Your task to perform on an android device: change the upload size in google photos Image 0: 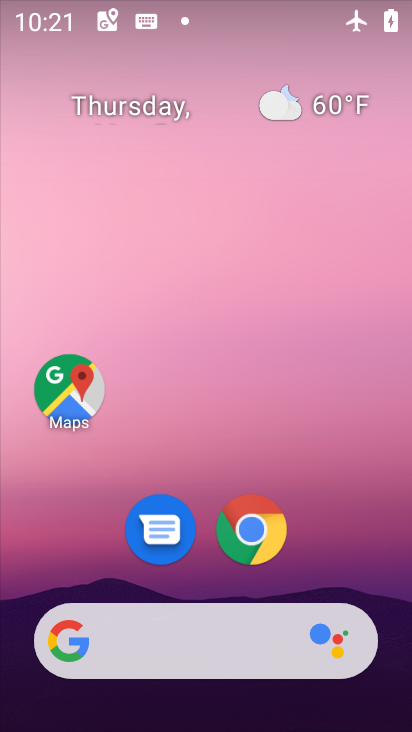
Step 0: drag from (350, 570) to (172, 130)
Your task to perform on an android device: change the upload size in google photos Image 1: 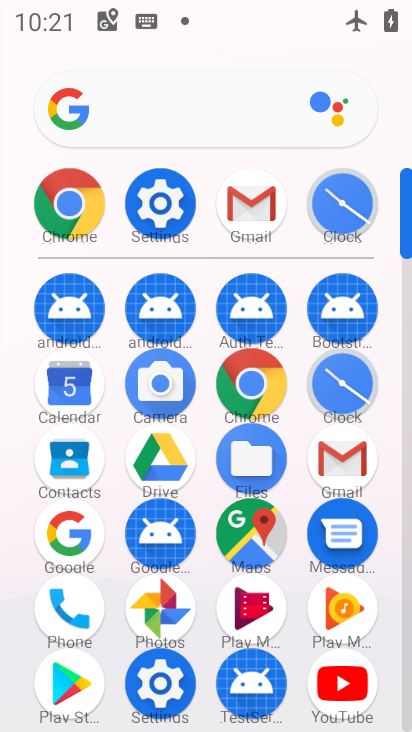
Step 1: click (141, 608)
Your task to perform on an android device: change the upload size in google photos Image 2: 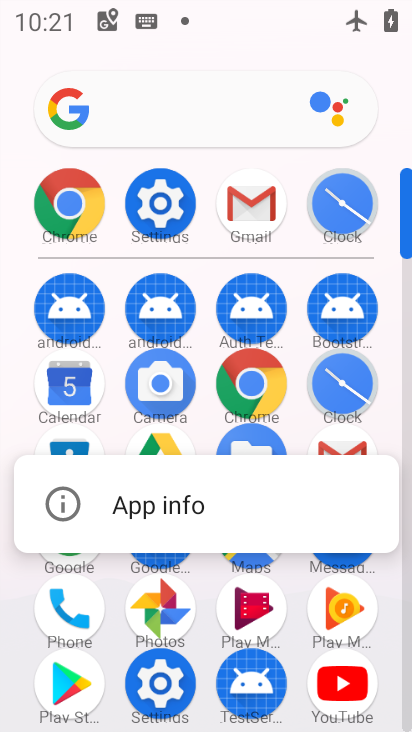
Step 2: click (141, 608)
Your task to perform on an android device: change the upload size in google photos Image 3: 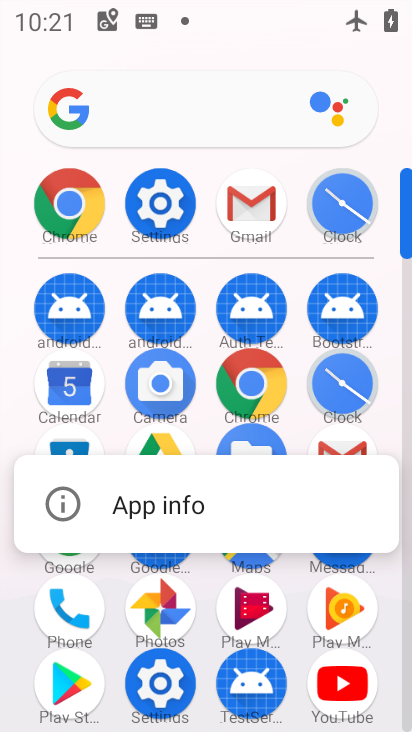
Step 3: click (167, 616)
Your task to perform on an android device: change the upload size in google photos Image 4: 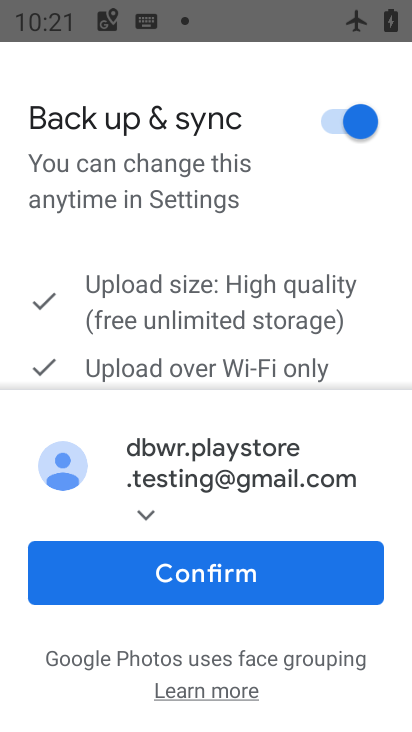
Step 4: click (244, 569)
Your task to perform on an android device: change the upload size in google photos Image 5: 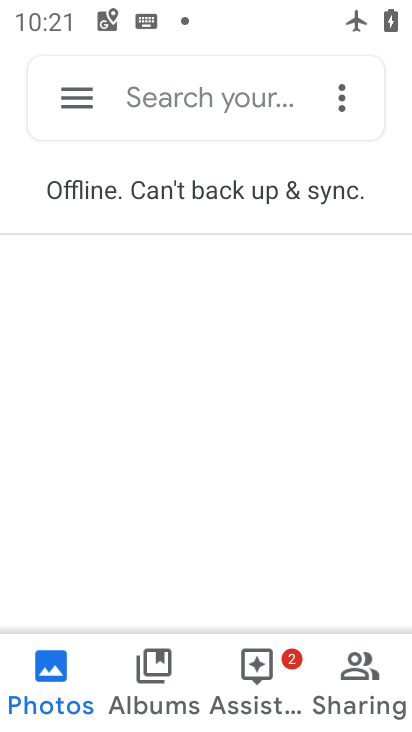
Step 5: drag from (71, 90) to (83, 356)
Your task to perform on an android device: change the upload size in google photos Image 6: 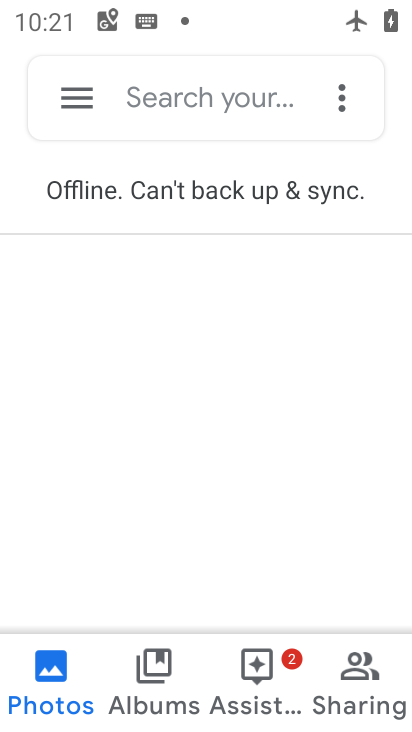
Step 6: click (81, 101)
Your task to perform on an android device: change the upload size in google photos Image 7: 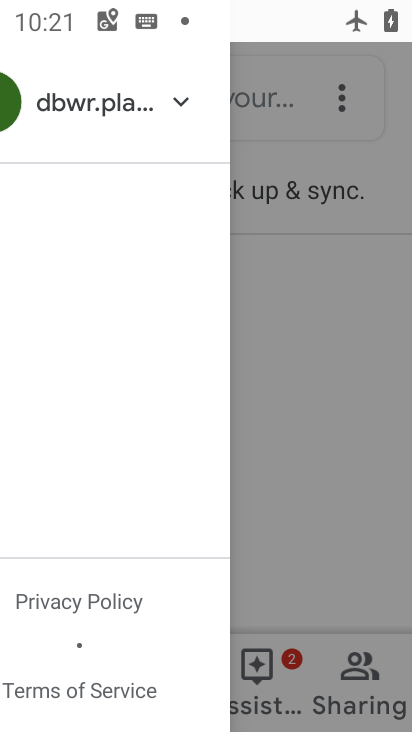
Step 7: click (81, 101)
Your task to perform on an android device: change the upload size in google photos Image 8: 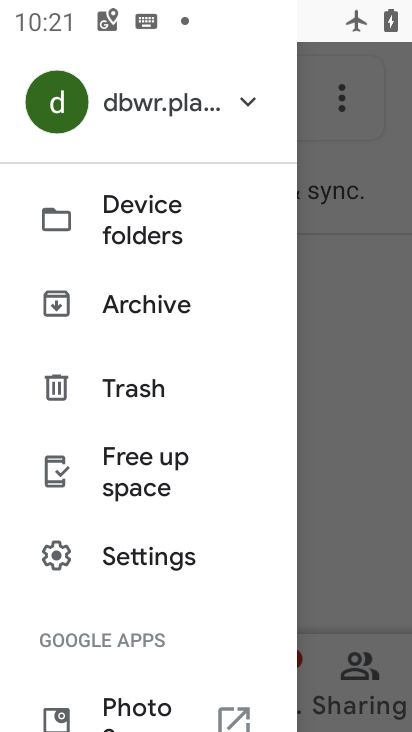
Step 8: click (81, 101)
Your task to perform on an android device: change the upload size in google photos Image 9: 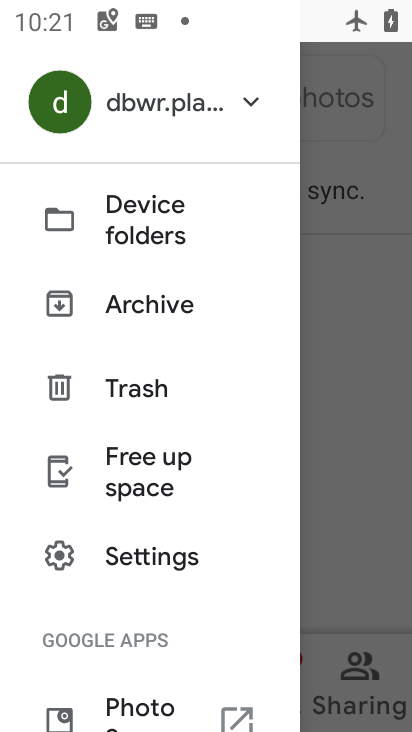
Step 9: click (81, 101)
Your task to perform on an android device: change the upload size in google photos Image 10: 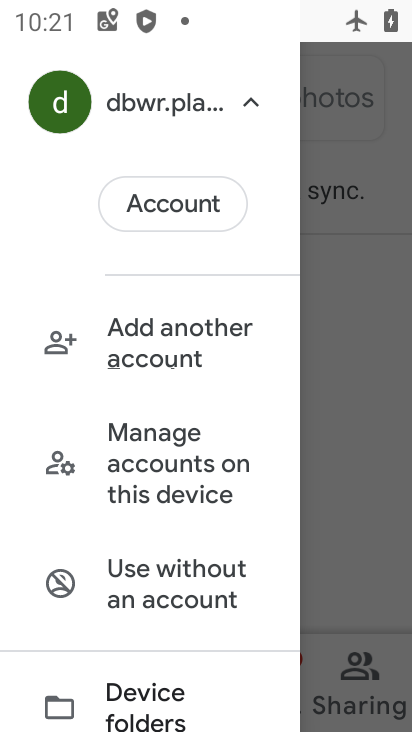
Step 10: click (326, 463)
Your task to perform on an android device: change the upload size in google photos Image 11: 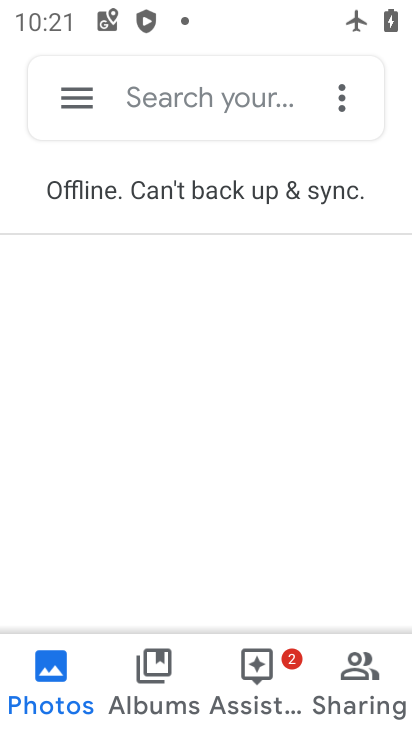
Step 11: click (326, 461)
Your task to perform on an android device: change the upload size in google photos Image 12: 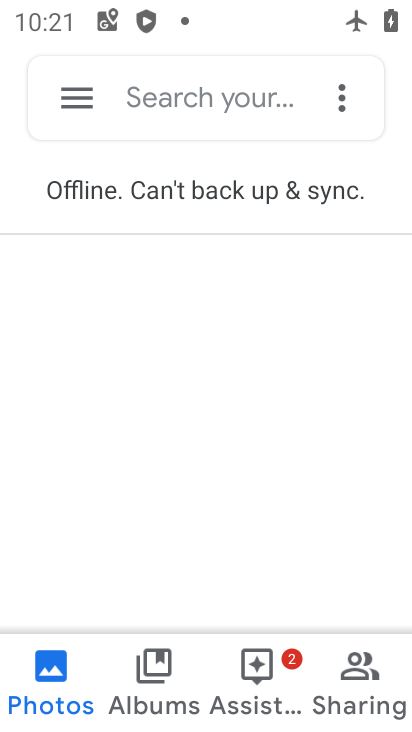
Step 12: click (87, 102)
Your task to perform on an android device: change the upload size in google photos Image 13: 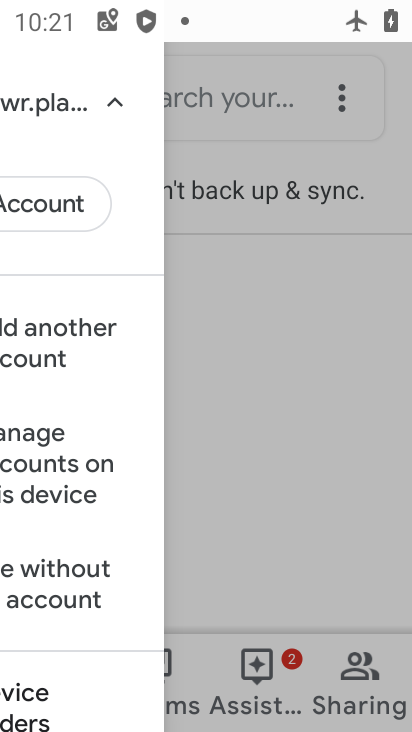
Step 13: click (89, 102)
Your task to perform on an android device: change the upload size in google photos Image 14: 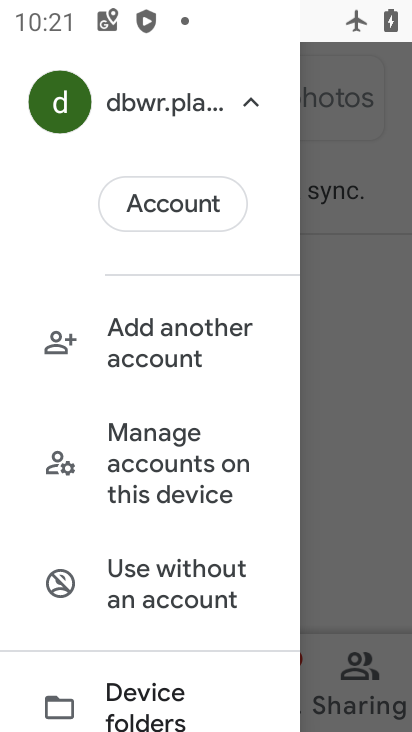
Step 14: drag from (173, 541) to (186, 232)
Your task to perform on an android device: change the upload size in google photos Image 15: 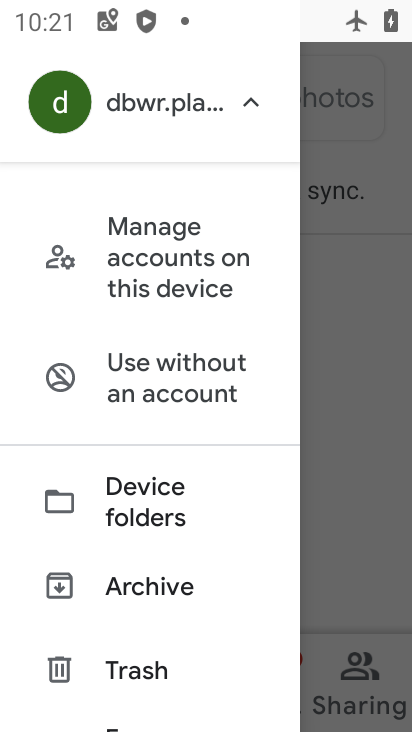
Step 15: drag from (150, 503) to (134, 272)
Your task to perform on an android device: change the upload size in google photos Image 16: 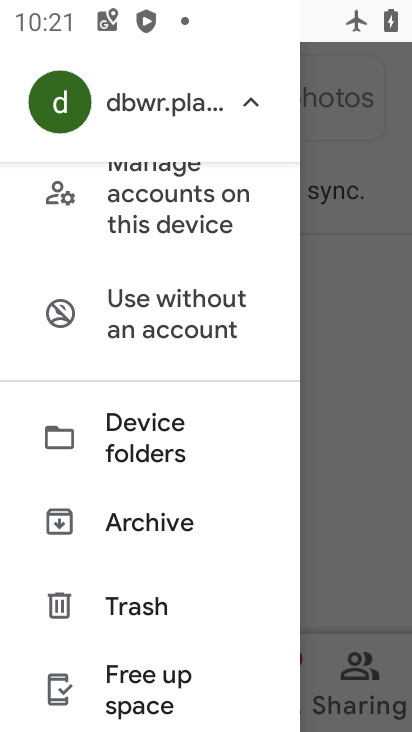
Step 16: drag from (174, 532) to (132, 165)
Your task to perform on an android device: change the upload size in google photos Image 17: 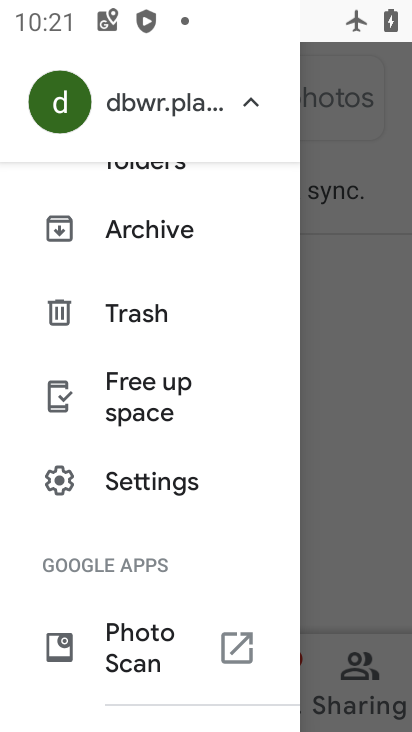
Step 17: click (134, 479)
Your task to perform on an android device: change the upload size in google photos Image 18: 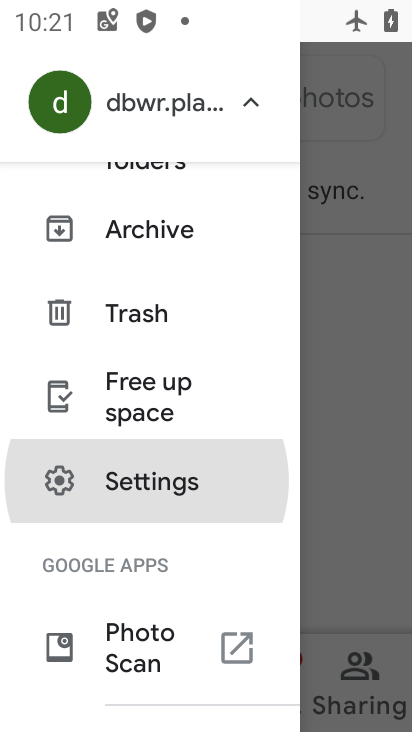
Step 18: click (137, 480)
Your task to perform on an android device: change the upload size in google photos Image 19: 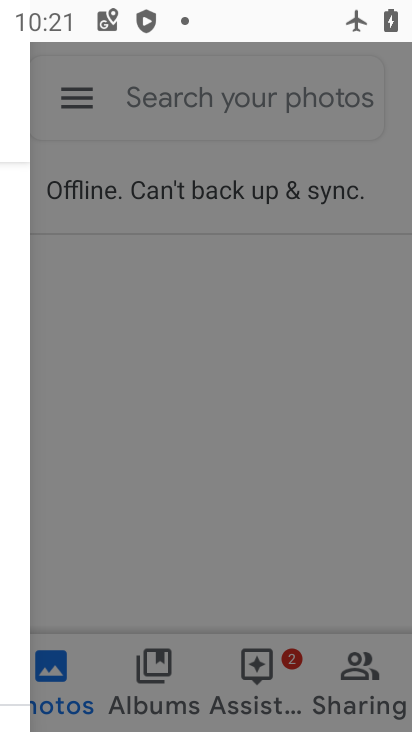
Step 19: click (138, 479)
Your task to perform on an android device: change the upload size in google photos Image 20: 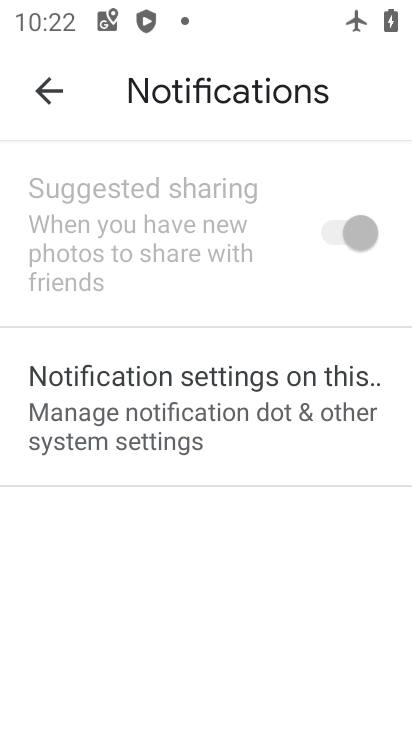
Step 20: click (52, 79)
Your task to perform on an android device: change the upload size in google photos Image 21: 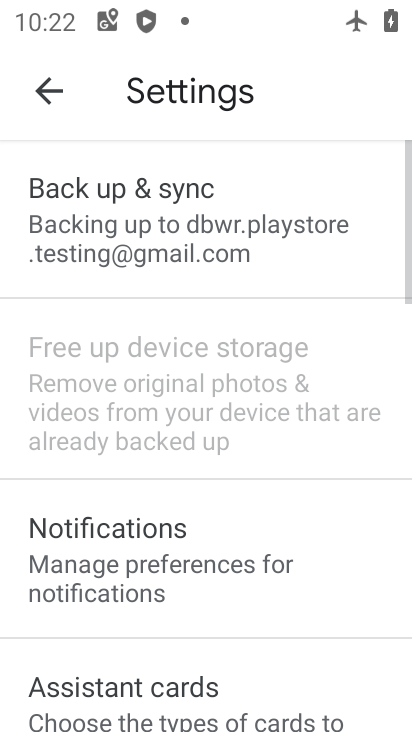
Step 21: click (157, 238)
Your task to perform on an android device: change the upload size in google photos Image 22: 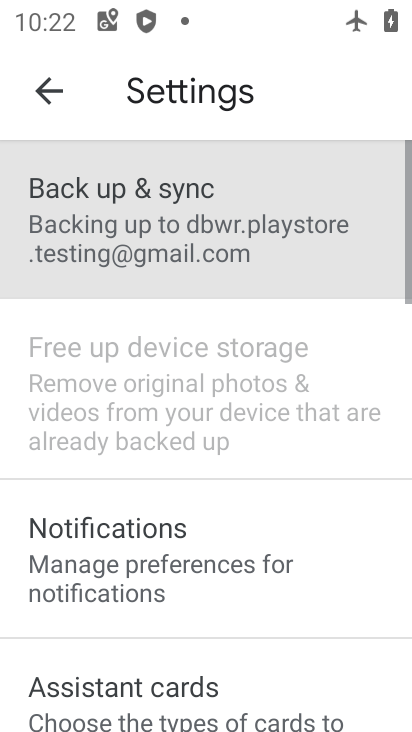
Step 22: click (157, 238)
Your task to perform on an android device: change the upload size in google photos Image 23: 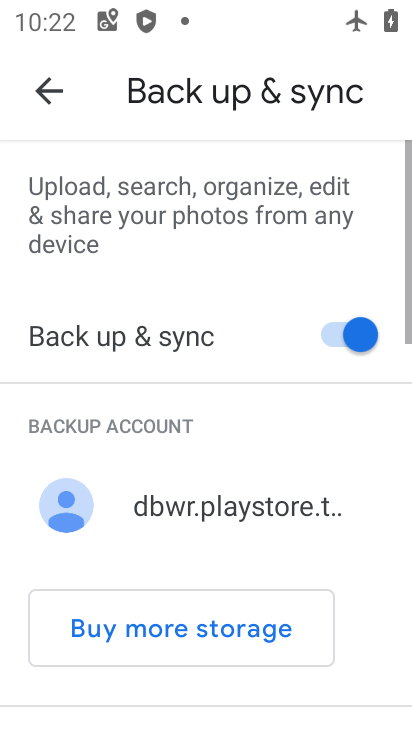
Step 23: drag from (199, 597) to (132, 242)
Your task to perform on an android device: change the upload size in google photos Image 24: 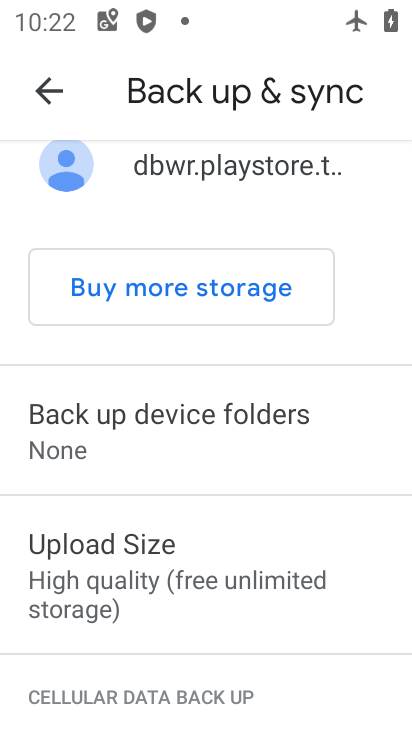
Step 24: click (68, 567)
Your task to perform on an android device: change the upload size in google photos Image 25: 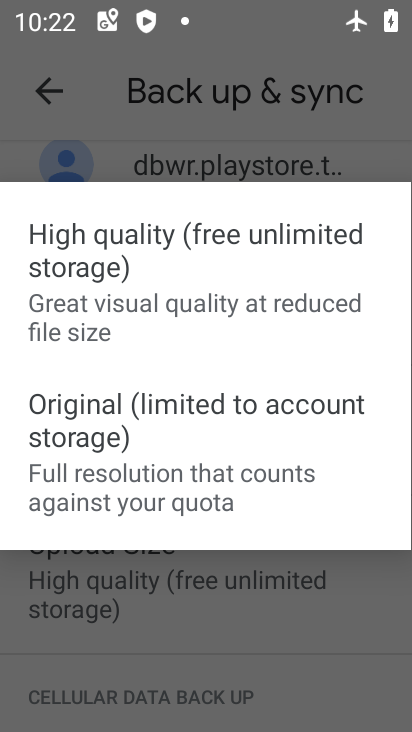
Step 25: click (64, 435)
Your task to perform on an android device: change the upload size in google photos Image 26: 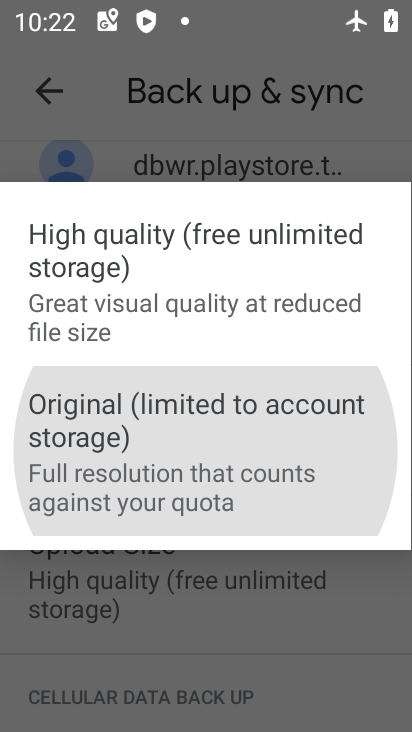
Step 26: click (63, 435)
Your task to perform on an android device: change the upload size in google photos Image 27: 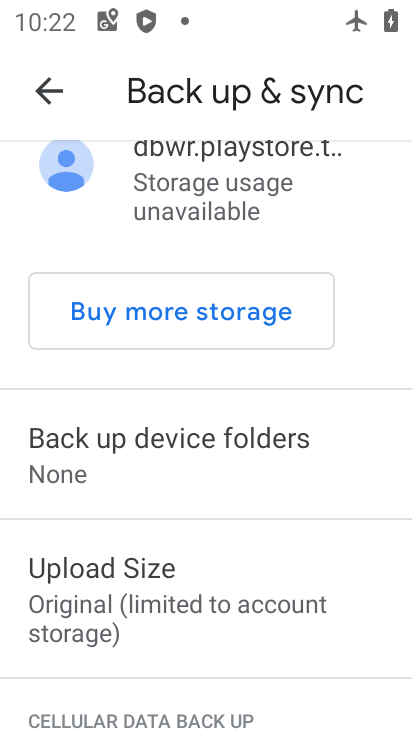
Step 27: click (63, 435)
Your task to perform on an android device: change the upload size in google photos Image 28: 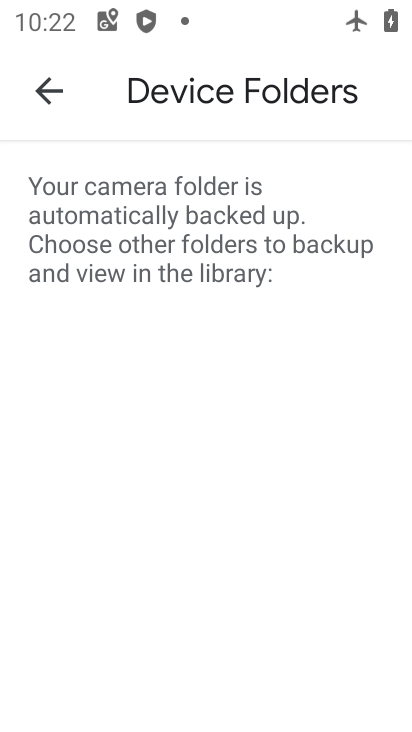
Step 28: click (50, 92)
Your task to perform on an android device: change the upload size in google photos Image 29: 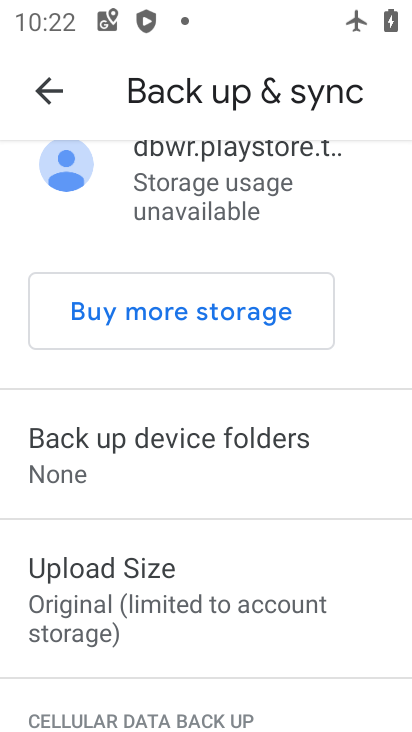
Step 29: task complete